Your task to perform on an android device: Open Youtube and go to "Your channel" Image 0: 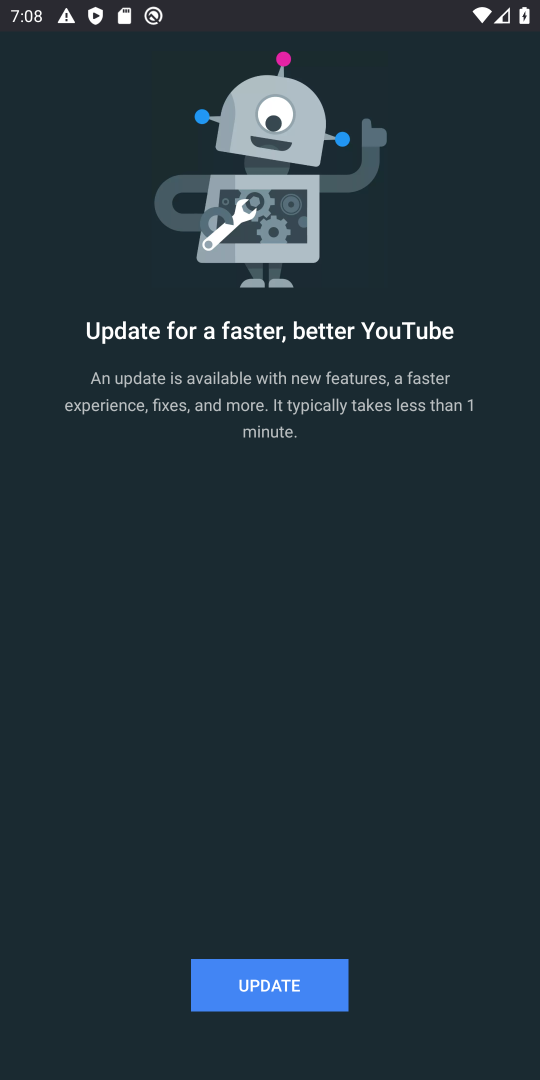
Step 0: press home button
Your task to perform on an android device: Open Youtube and go to "Your channel" Image 1: 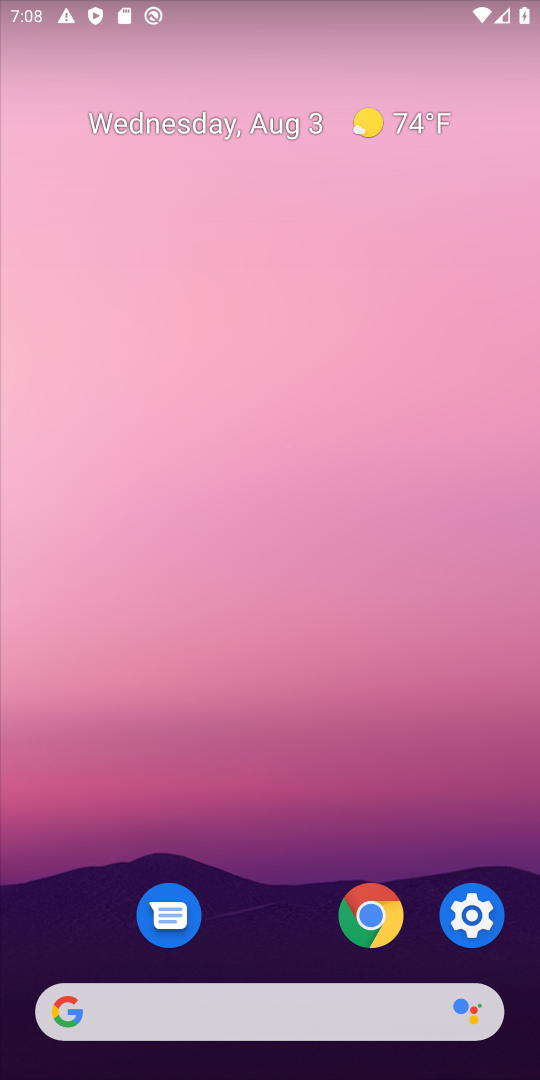
Step 1: drag from (323, 1027) to (260, 249)
Your task to perform on an android device: Open Youtube and go to "Your channel" Image 2: 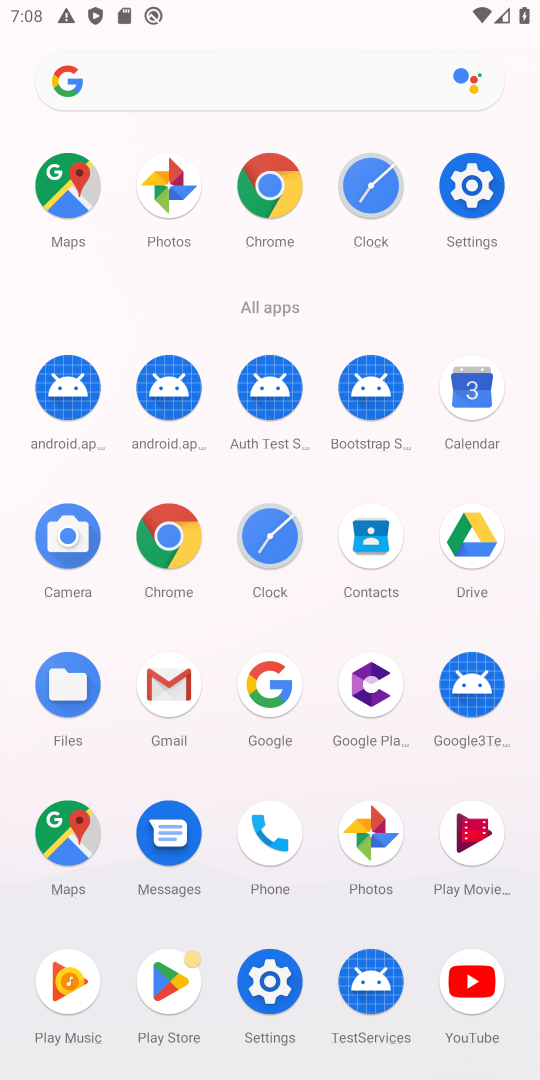
Step 2: click (477, 1001)
Your task to perform on an android device: Open Youtube and go to "Your channel" Image 3: 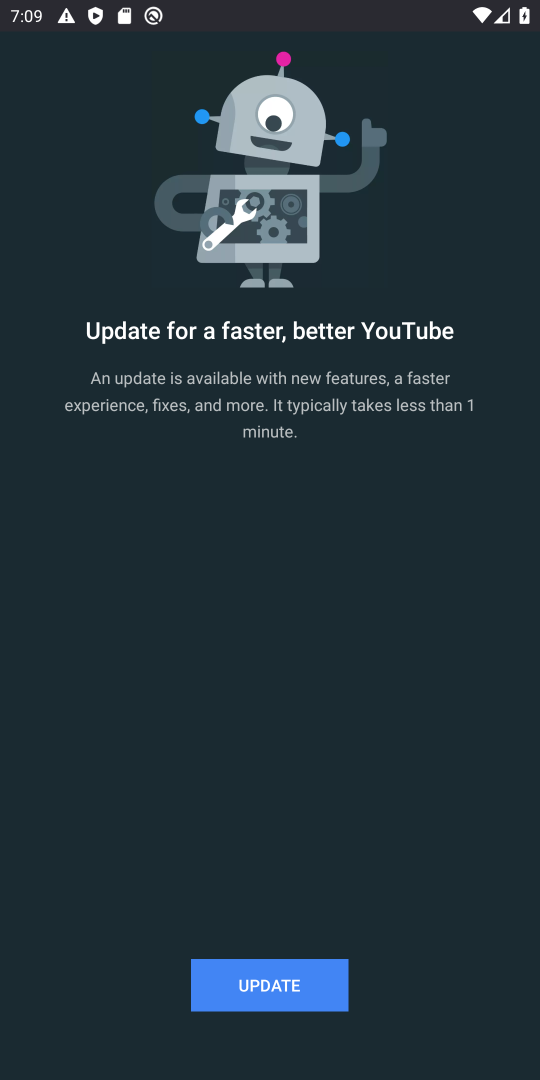
Step 3: click (321, 995)
Your task to perform on an android device: Open Youtube and go to "Your channel" Image 4: 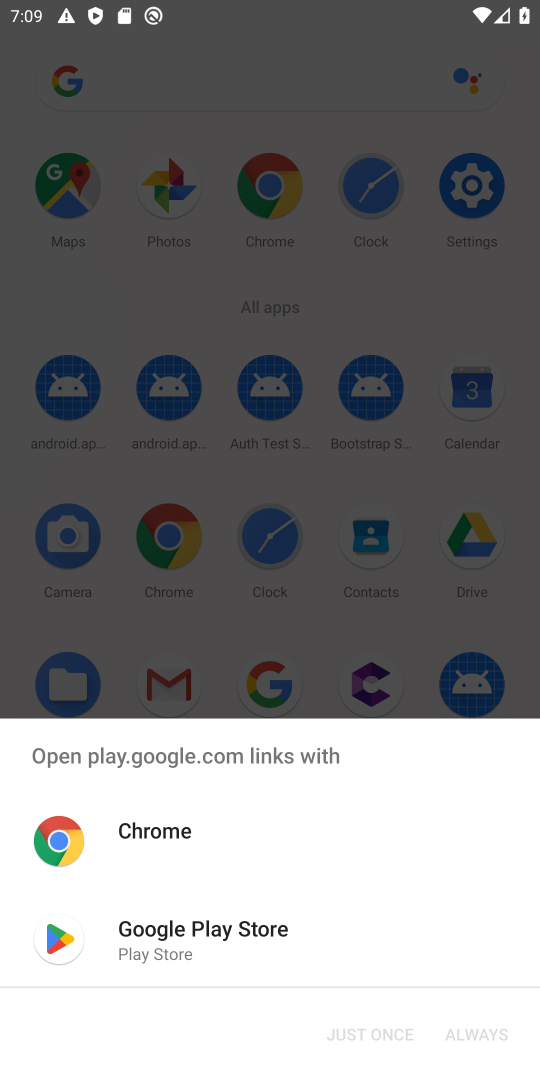
Step 4: click (229, 925)
Your task to perform on an android device: Open Youtube and go to "Your channel" Image 5: 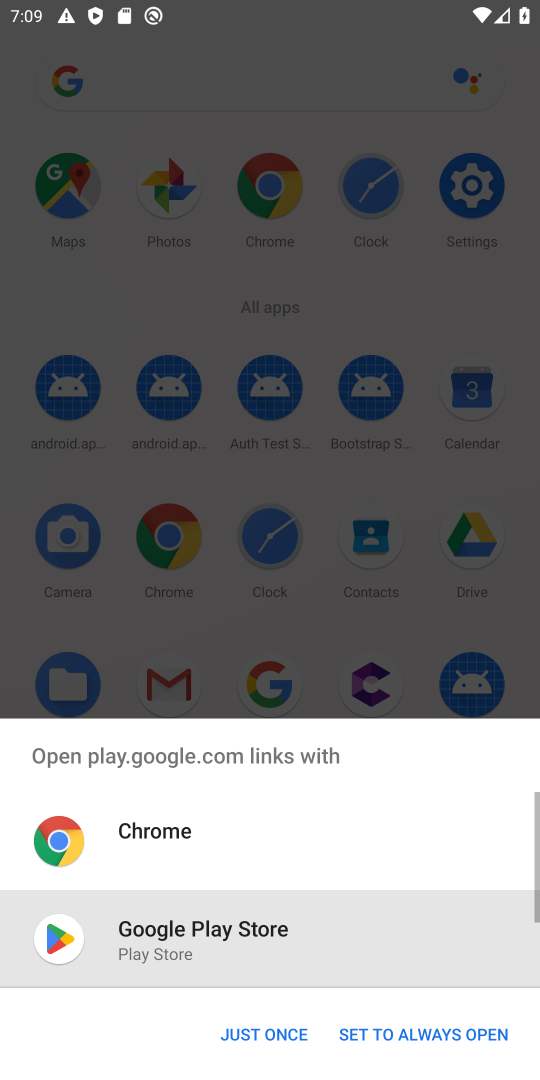
Step 5: click (278, 1032)
Your task to perform on an android device: Open Youtube and go to "Your channel" Image 6: 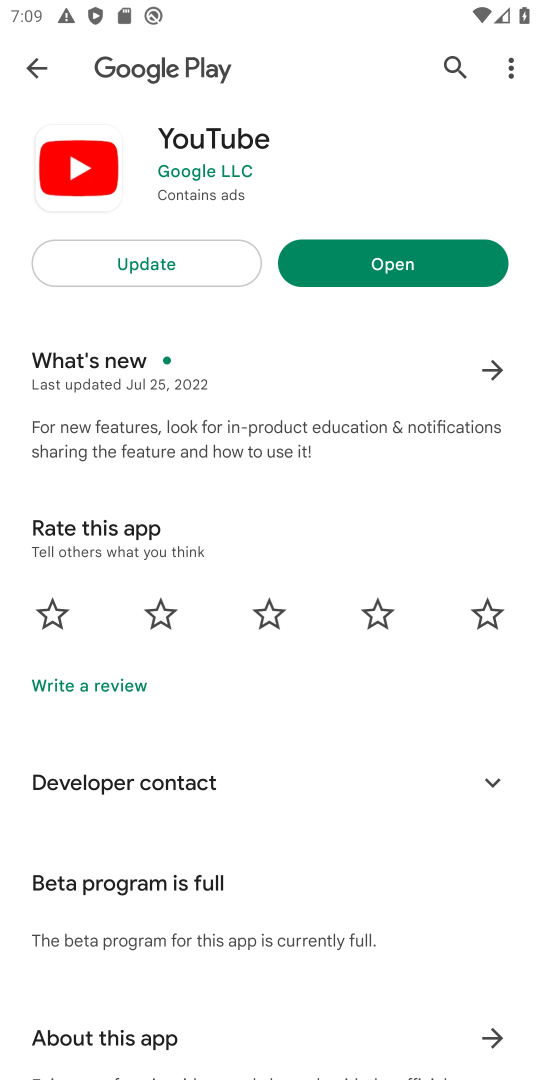
Step 6: click (129, 260)
Your task to perform on an android device: Open Youtube and go to "Your channel" Image 7: 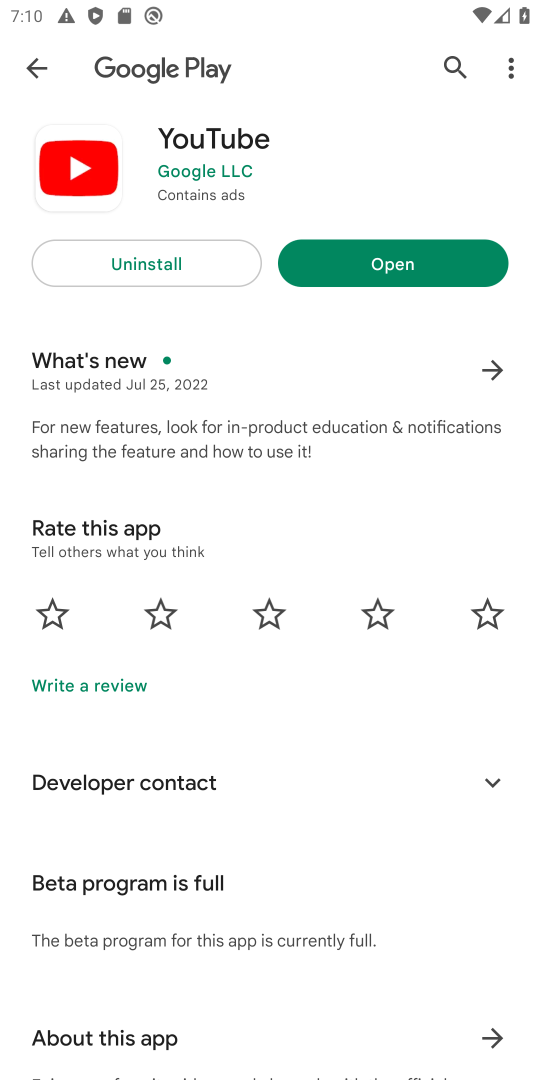
Step 7: click (391, 258)
Your task to perform on an android device: Open Youtube and go to "Your channel" Image 8: 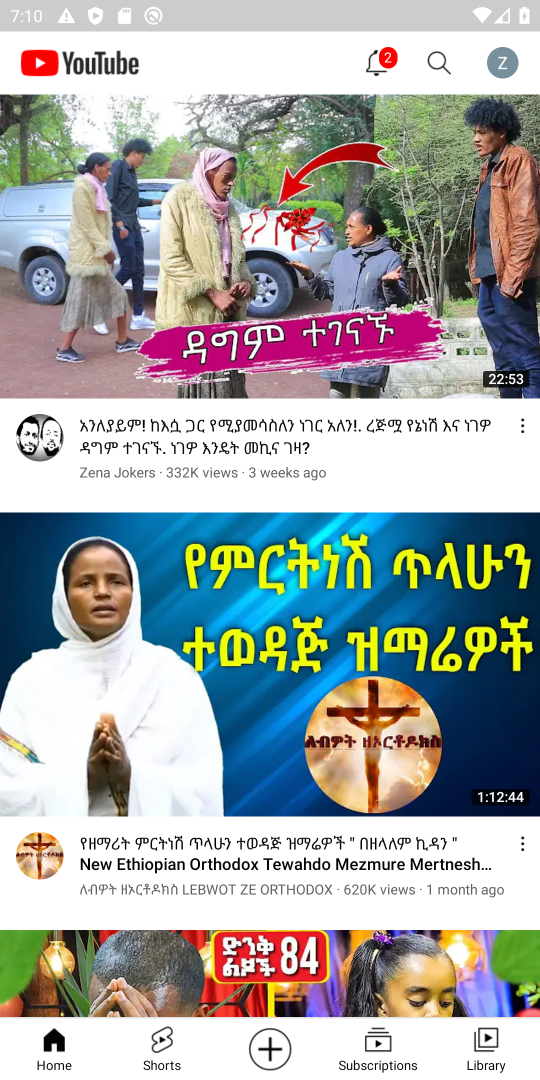
Step 8: click (498, 72)
Your task to perform on an android device: Open Youtube and go to "Your channel" Image 9: 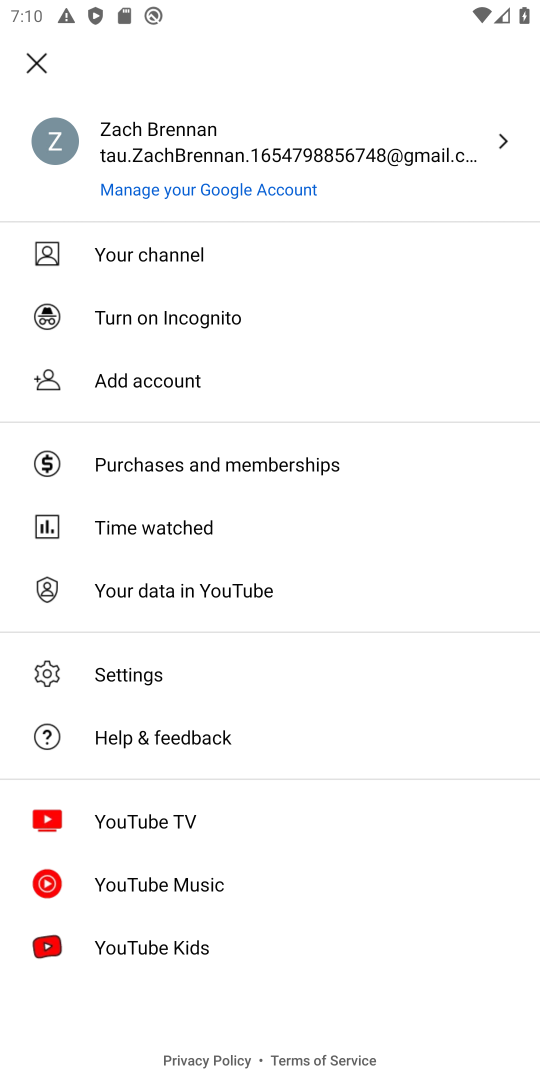
Step 9: click (178, 250)
Your task to perform on an android device: Open Youtube and go to "Your channel" Image 10: 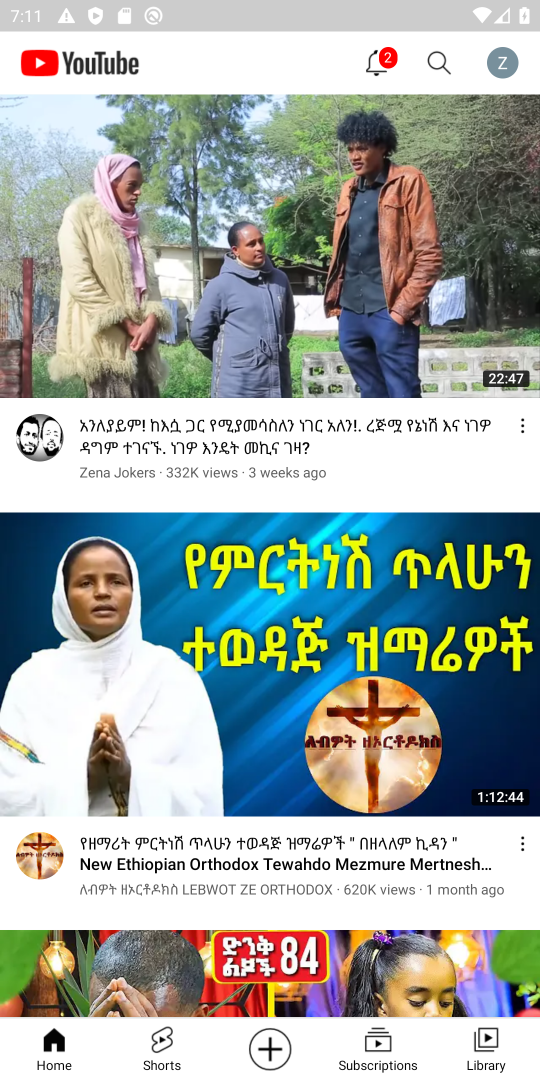
Step 10: click (509, 68)
Your task to perform on an android device: Open Youtube and go to "Your channel" Image 11: 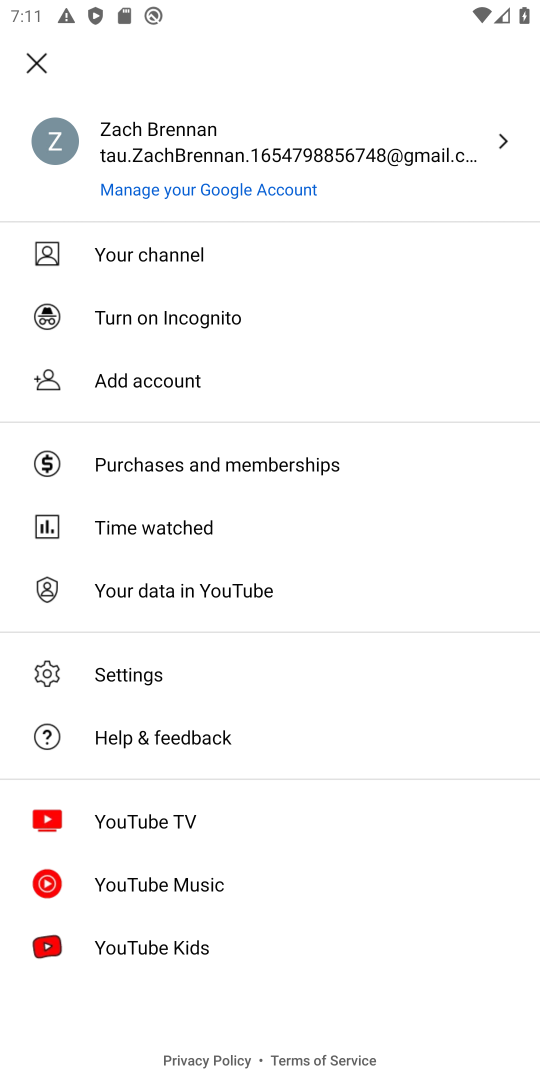
Step 11: click (144, 258)
Your task to perform on an android device: Open Youtube and go to "Your channel" Image 12: 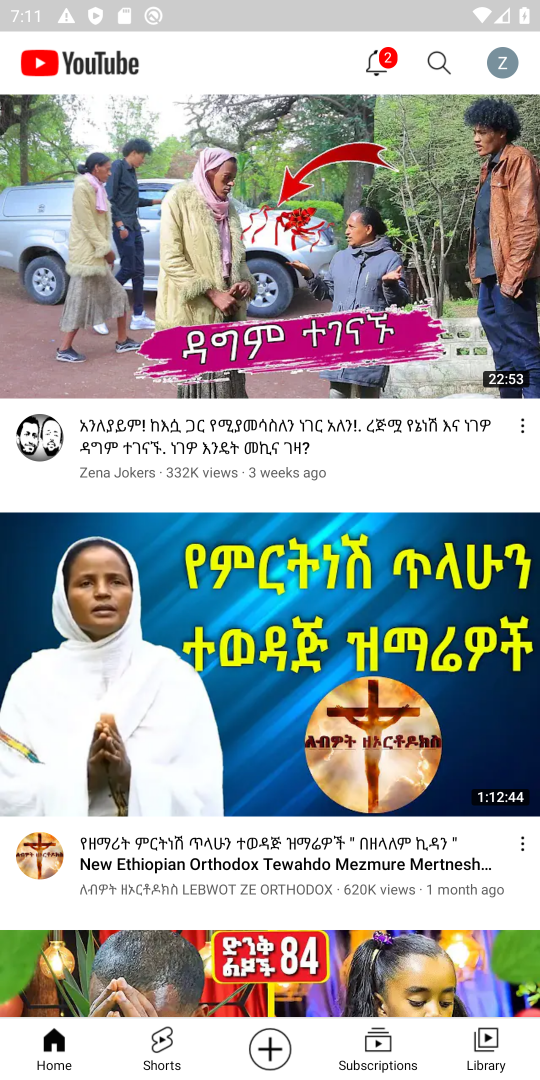
Step 12: click (489, 66)
Your task to perform on an android device: Open Youtube and go to "Your channel" Image 13: 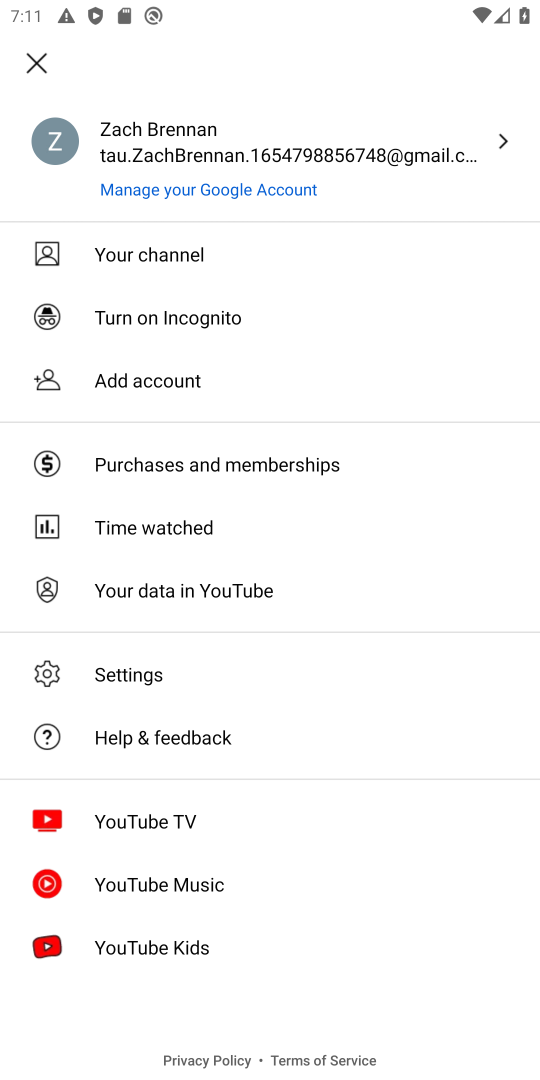
Step 13: click (132, 263)
Your task to perform on an android device: Open Youtube and go to "Your channel" Image 14: 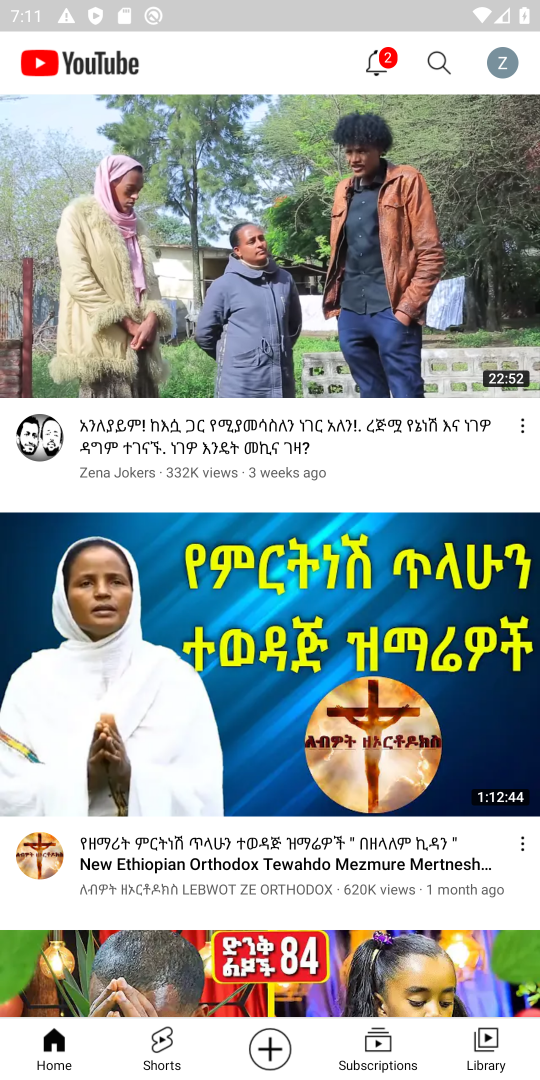
Step 14: click (496, 52)
Your task to perform on an android device: Open Youtube and go to "Your channel" Image 15: 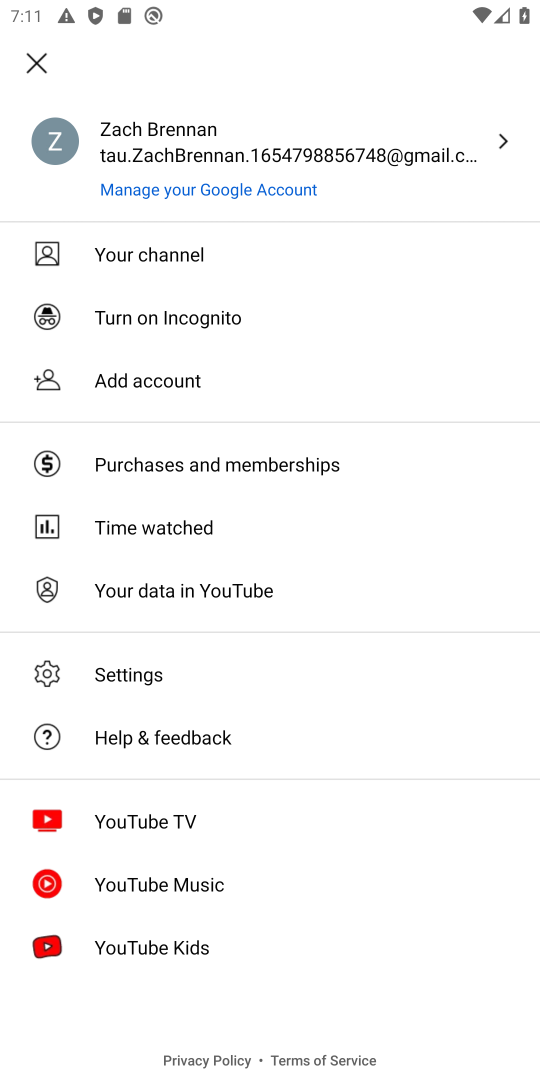
Step 15: click (151, 267)
Your task to perform on an android device: Open Youtube and go to "Your channel" Image 16: 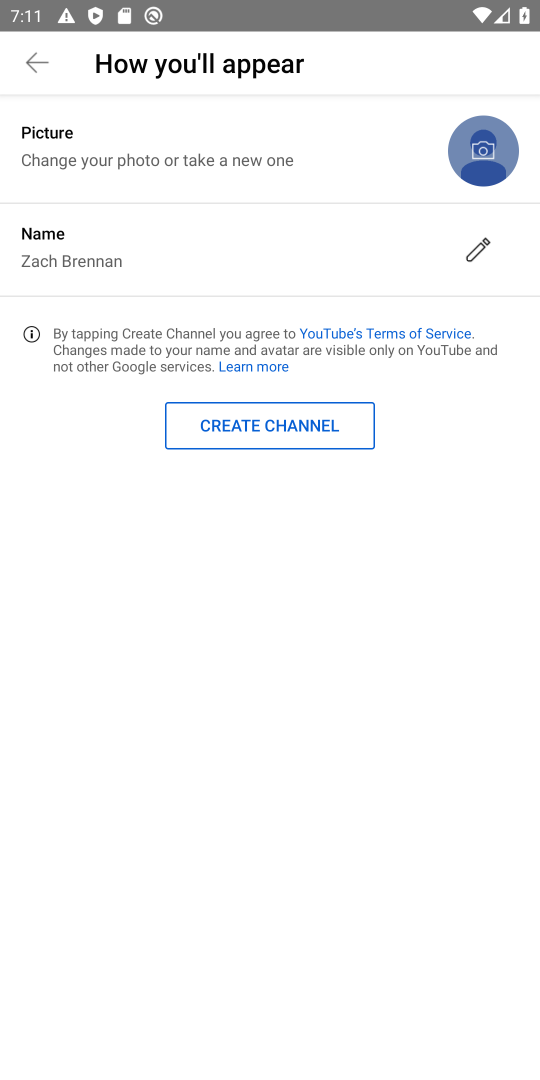
Step 16: task complete